Your task to perform on an android device: search for starred emails in the gmail app Image 0: 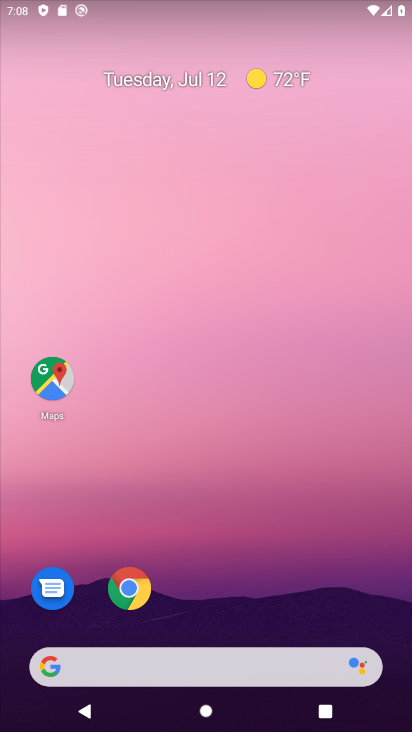
Step 0: drag from (294, 554) to (411, 137)
Your task to perform on an android device: search for starred emails in the gmail app Image 1: 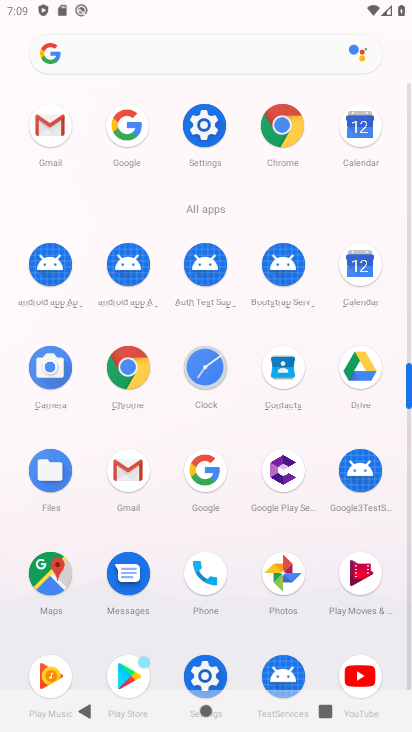
Step 1: click (55, 119)
Your task to perform on an android device: search for starred emails in the gmail app Image 2: 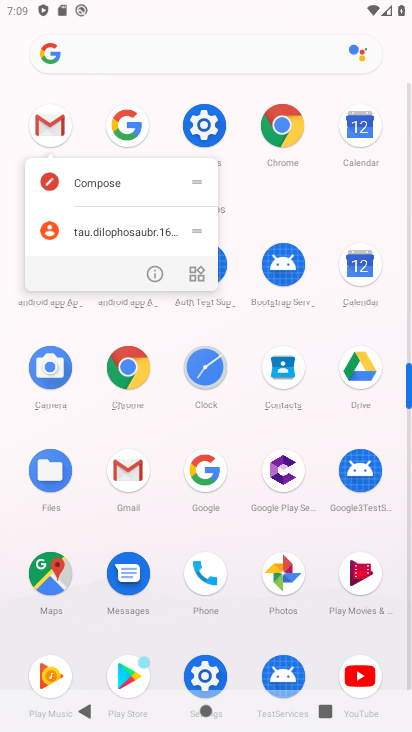
Step 2: click (60, 122)
Your task to perform on an android device: search for starred emails in the gmail app Image 3: 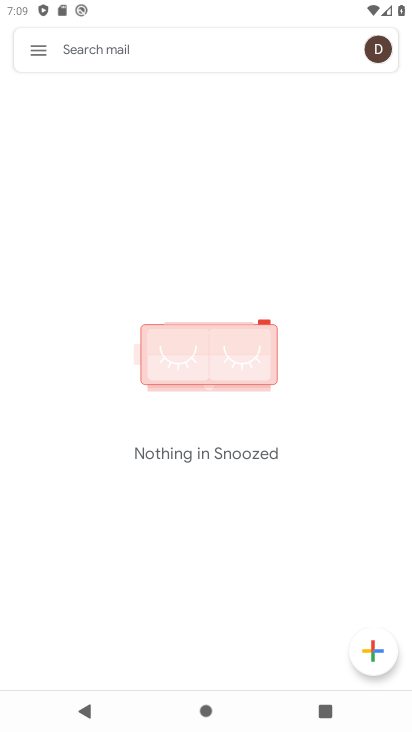
Step 3: click (43, 35)
Your task to perform on an android device: search for starred emails in the gmail app Image 4: 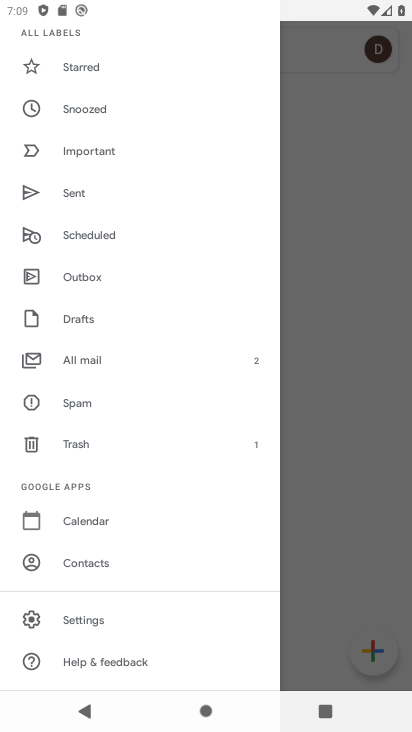
Step 4: click (66, 65)
Your task to perform on an android device: search for starred emails in the gmail app Image 5: 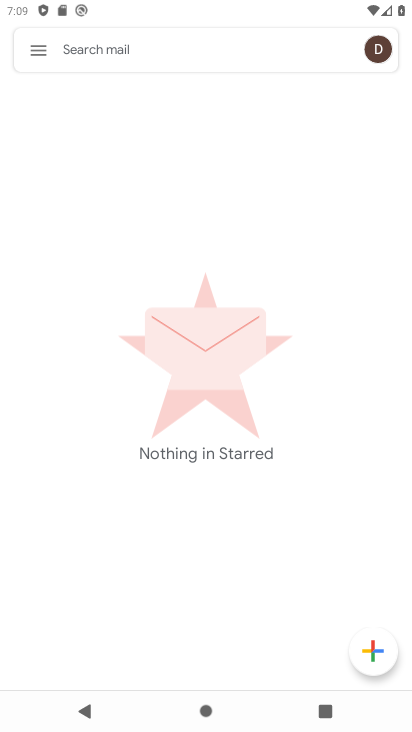
Step 5: task complete